Your task to perform on an android device: turn off location history Image 0: 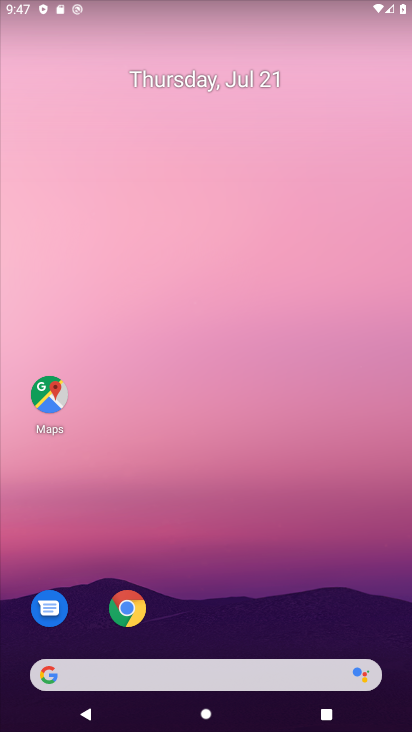
Step 0: drag from (153, 488) to (119, 191)
Your task to perform on an android device: turn off location history Image 1: 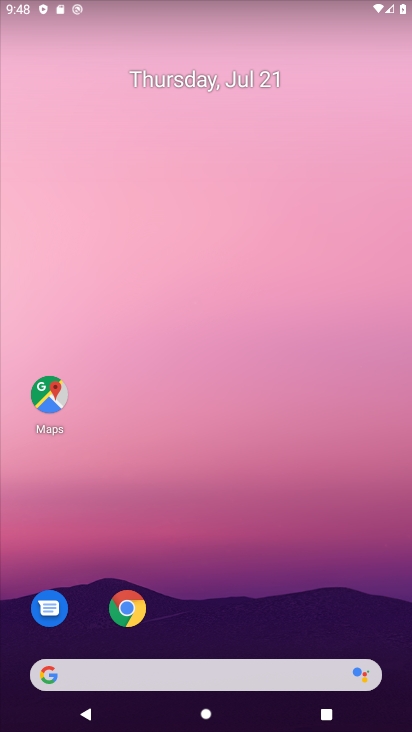
Step 1: drag from (208, 629) to (214, 191)
Your task to perform on an android device: turn off location history Image 2: 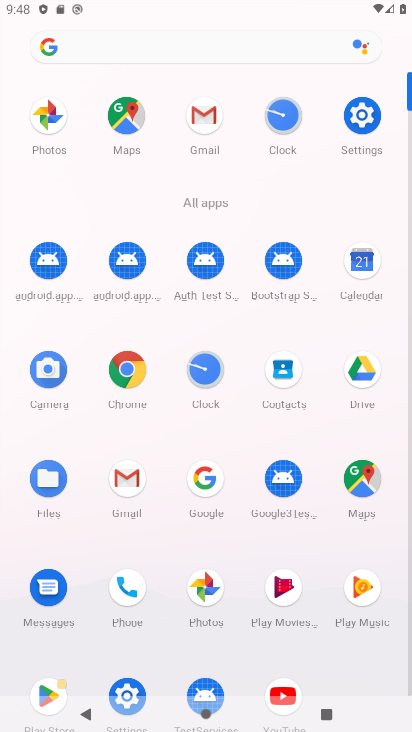
Step 2: click (360, 133)
Your task to perform on an android device: turn off location history Image 3: 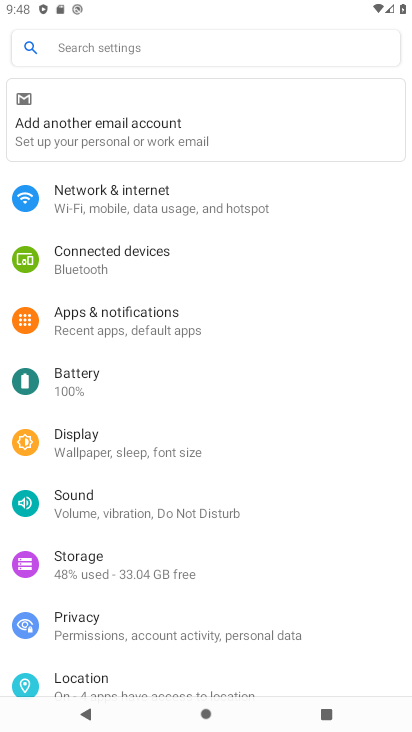
Step 3: click (131, 681)
Your task to perform on an android device: turn off location history Image 4: 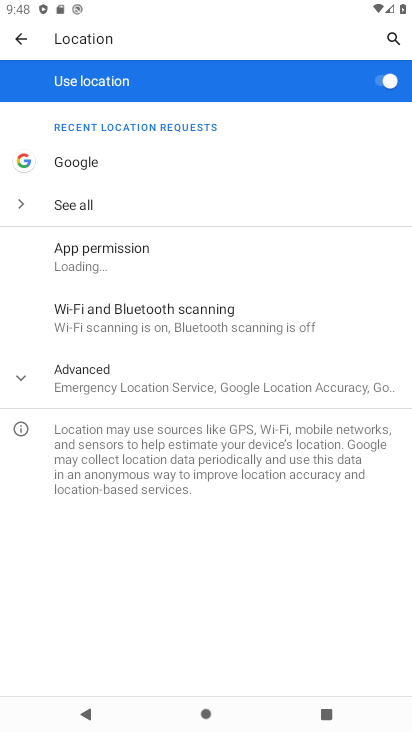
Step 4: click (125, 383)
Your task to perform on an android device: turn off location history Image 5: 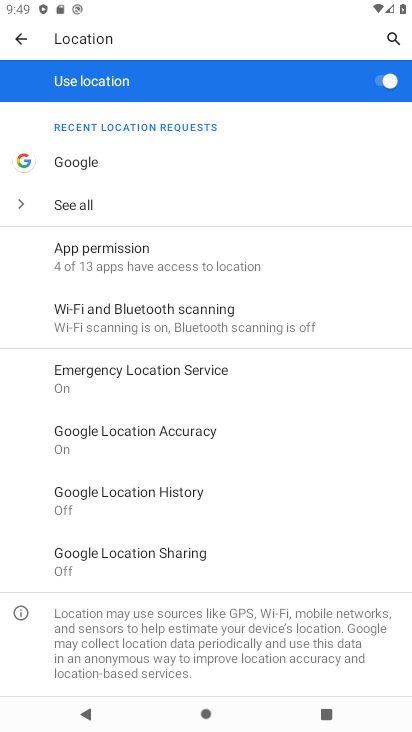
Step 5: click (152, 498)
Your task to perform on an android device: turn off location history Image 6: 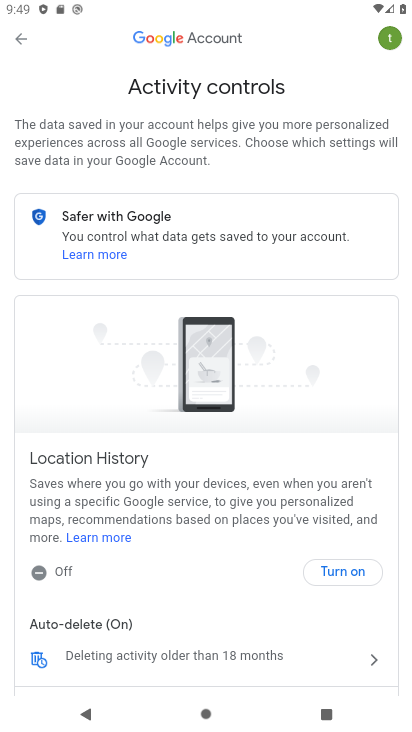
Step 6: task complete